Your task to perform on an android device: Open ESPN.com Image 0: 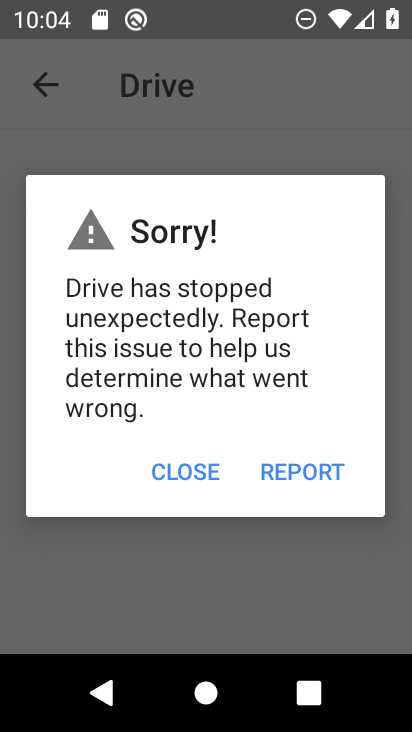
Step 0: press home button
Your task to perform on an android device: Open ESPN.com Image 1: 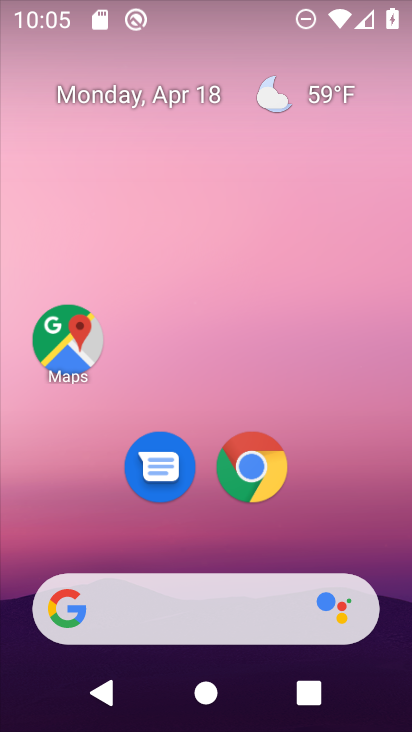
Step 1: click (244, 474)
Your task to perform on an android device: Open ESPN.com Image 2: 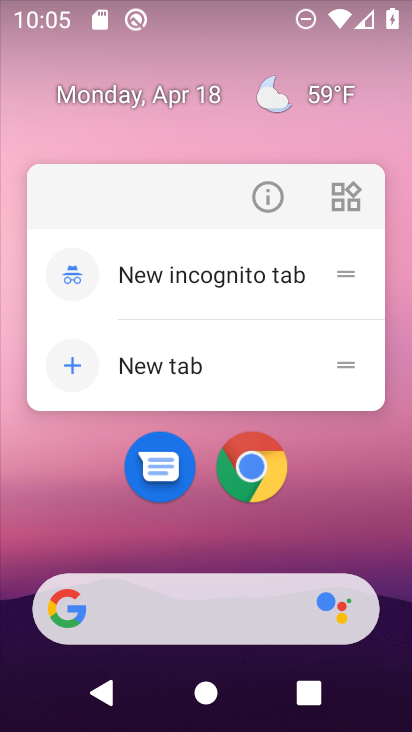
Step 2: click (241, 462)
Your task to perform on an android device: Open ESPN.com Image 3: 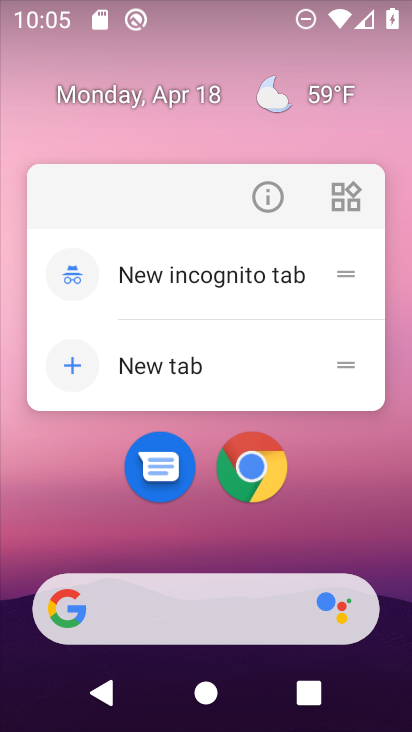
Step 3: click (267, 471)
Your task to perform on an android device: Open ESPN.com Image 4: 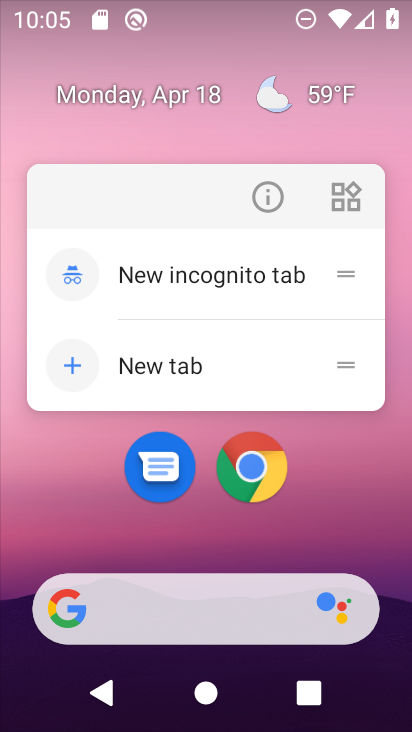
Step 4: click (256, 486)
Your task to perform on an android device: Open ESPN.com Image 5: 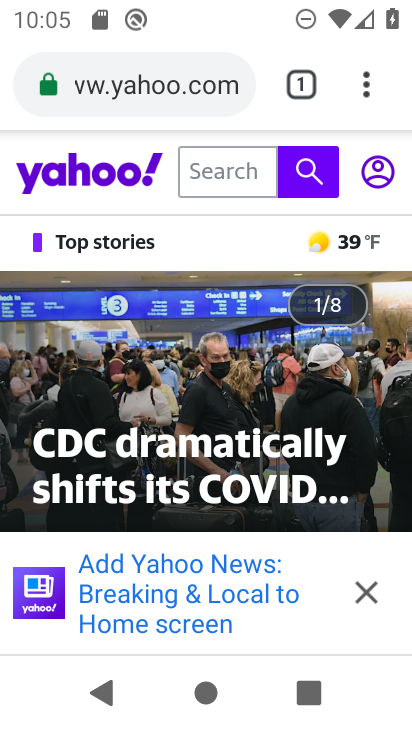
Step 5: click (300, 91)
Your task to perform on an android device: Open ESPN.com Image 6: 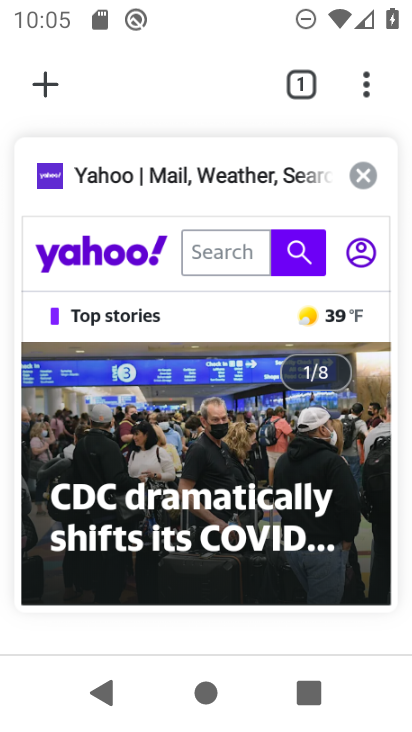
Step 6: click (44, 81)
Your task to perform on an android device: Open ESPN.com Image 7: 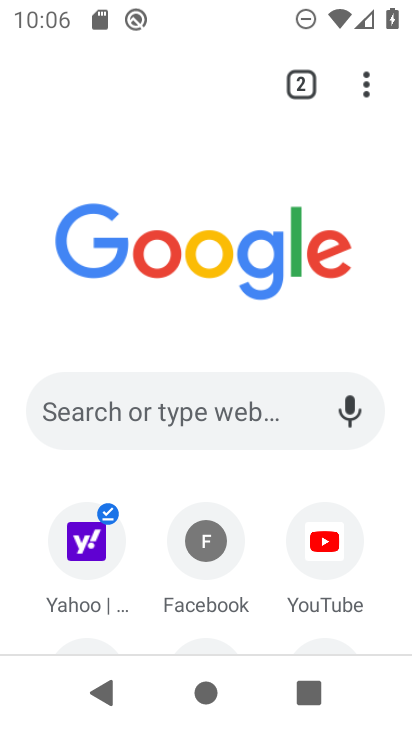
Step 7: drag from (217, 588) to (261, 150)
Your task to perform on an android device: Open ESPN.com Image 8: 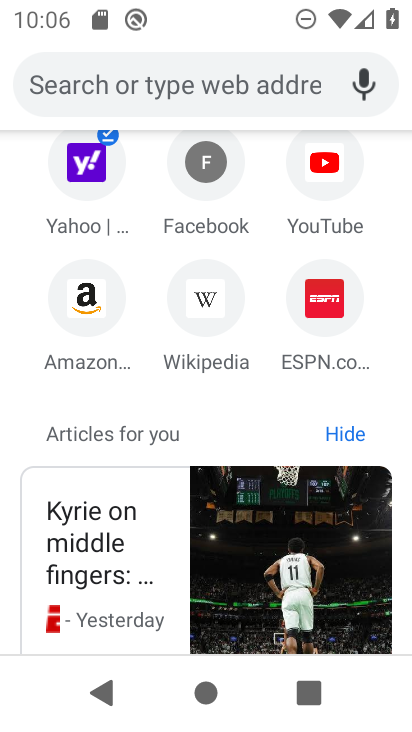
Step 8: click (316, 332)
Your task to perform on an android device: Open ESPN.com Image 9: 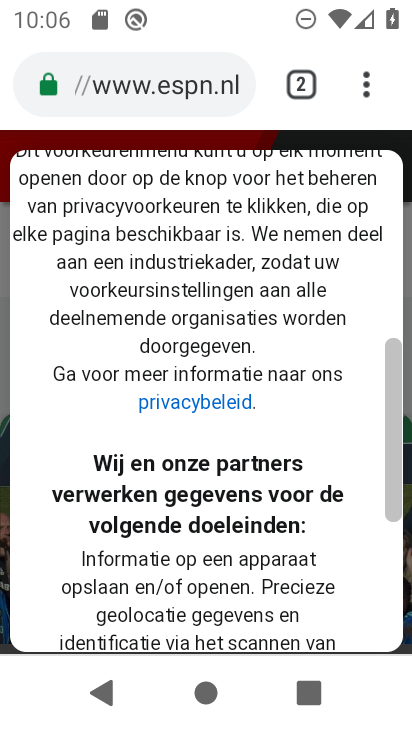
Step 9: task complete